Your task to perform on an android device: Empty the shopping cart on ebay. Image 0: 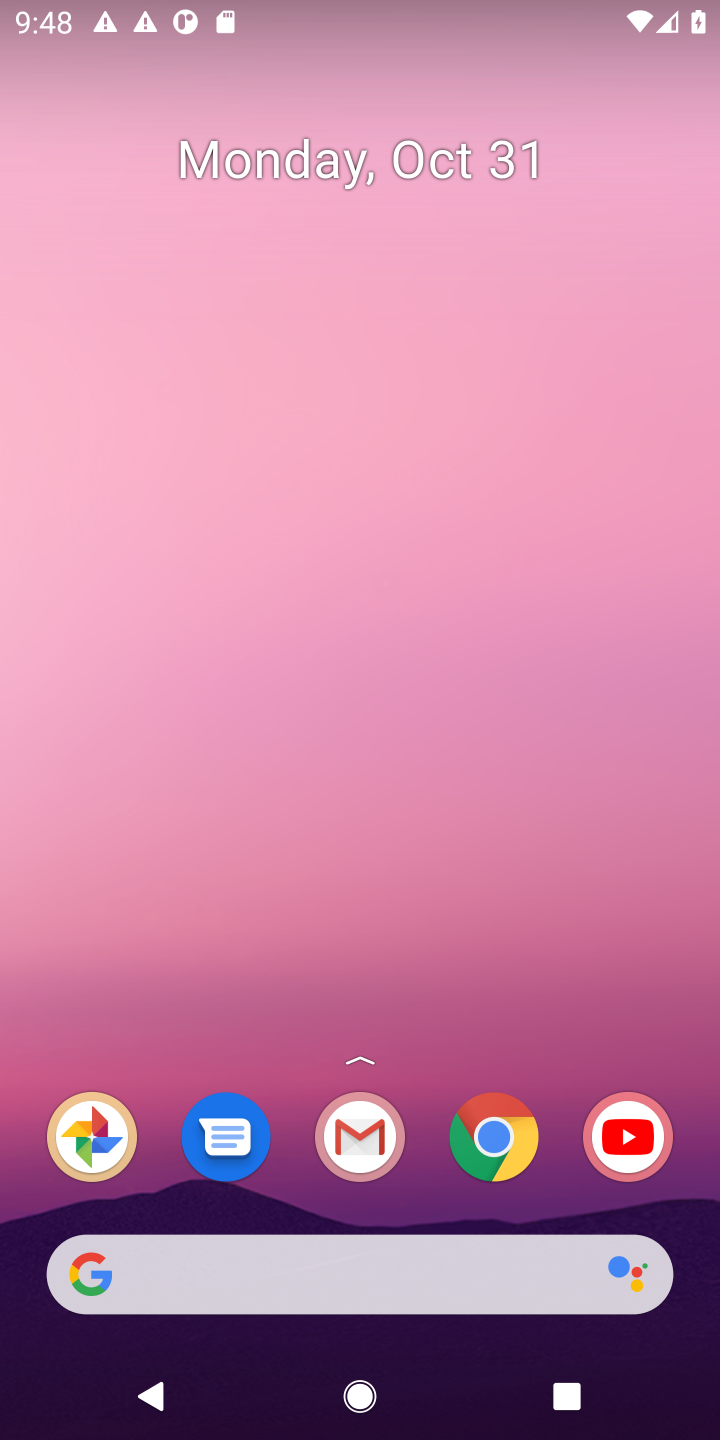
Step 0: press home button
Your task to perform on an android device: Empty the shopping cart on ebay. Image 1: 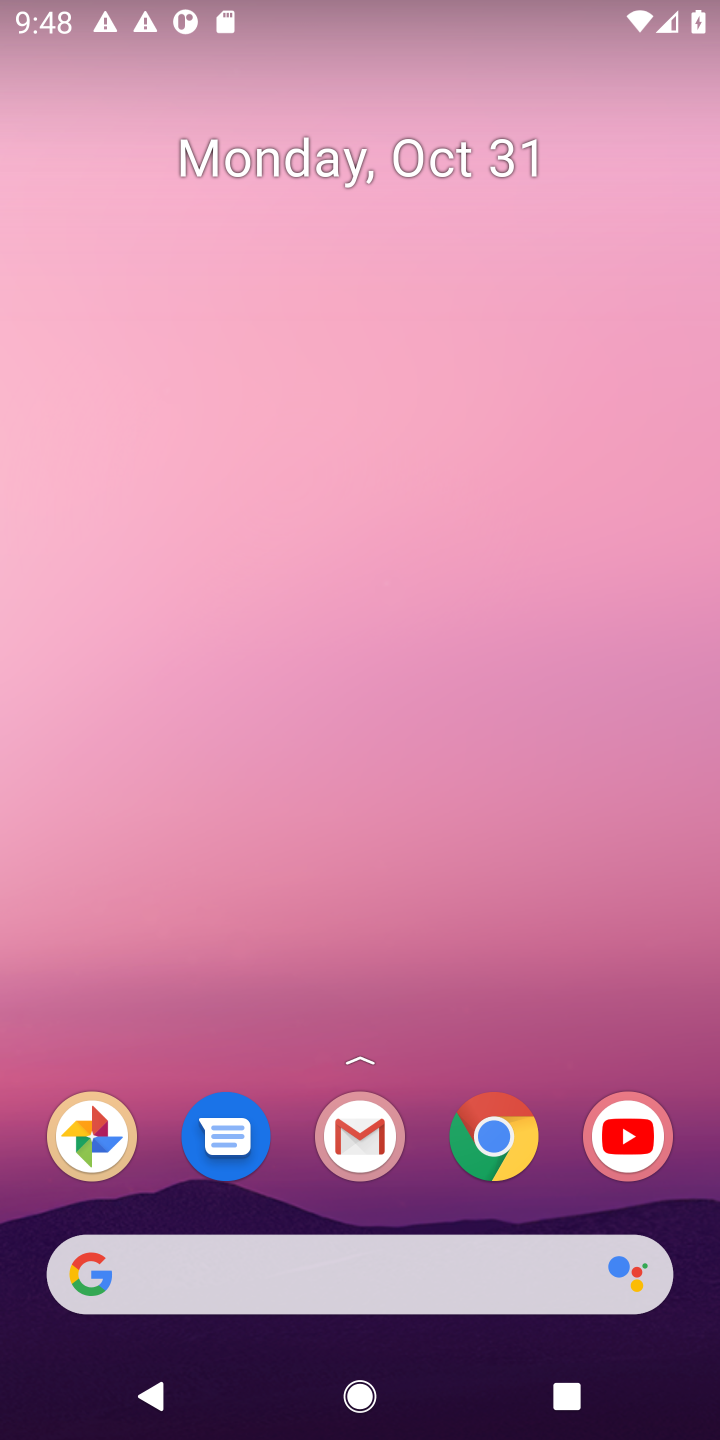
Step 1: click (136, 1273)
Your task to perform on an android device: Empty the shopping cart on ebay. Image 2: 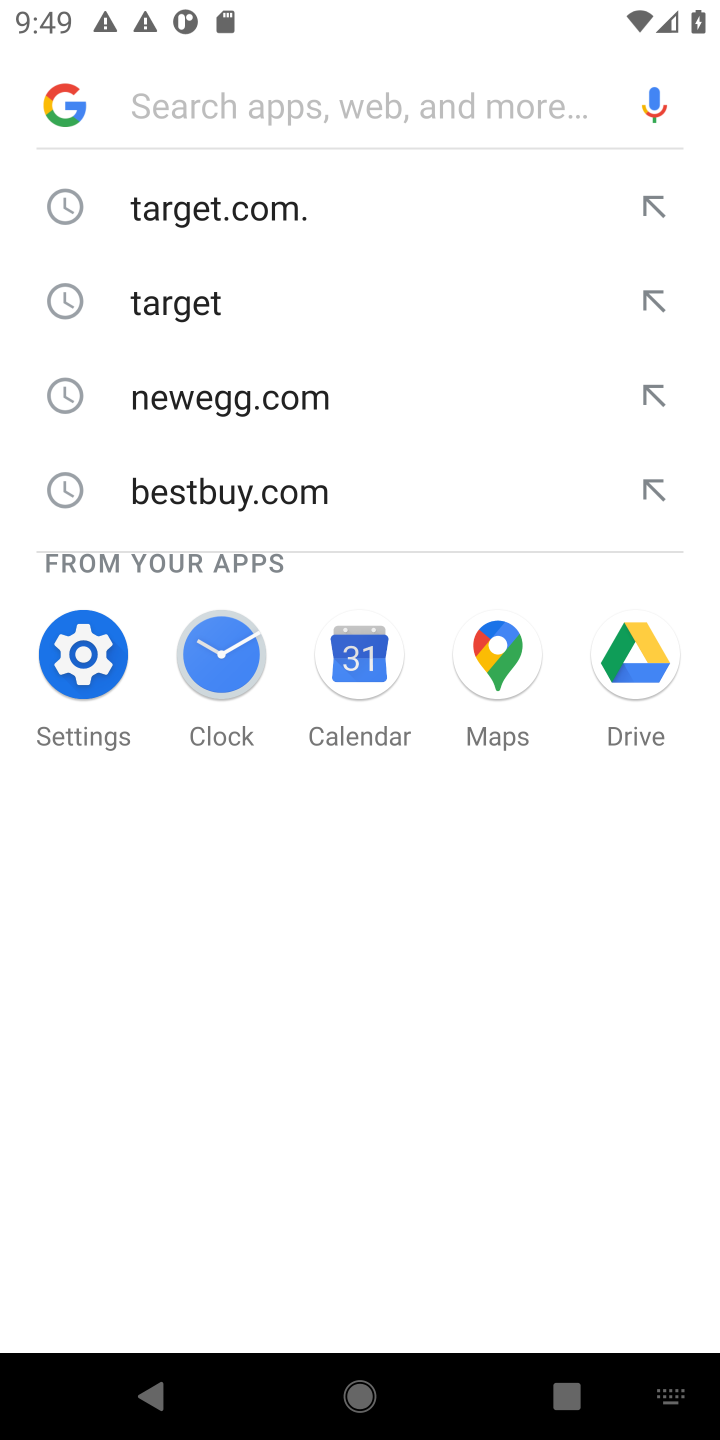
Step 2: type "ebay"
Your task to perform on an android device: Empty the shopping cart on ebay. Image 3: 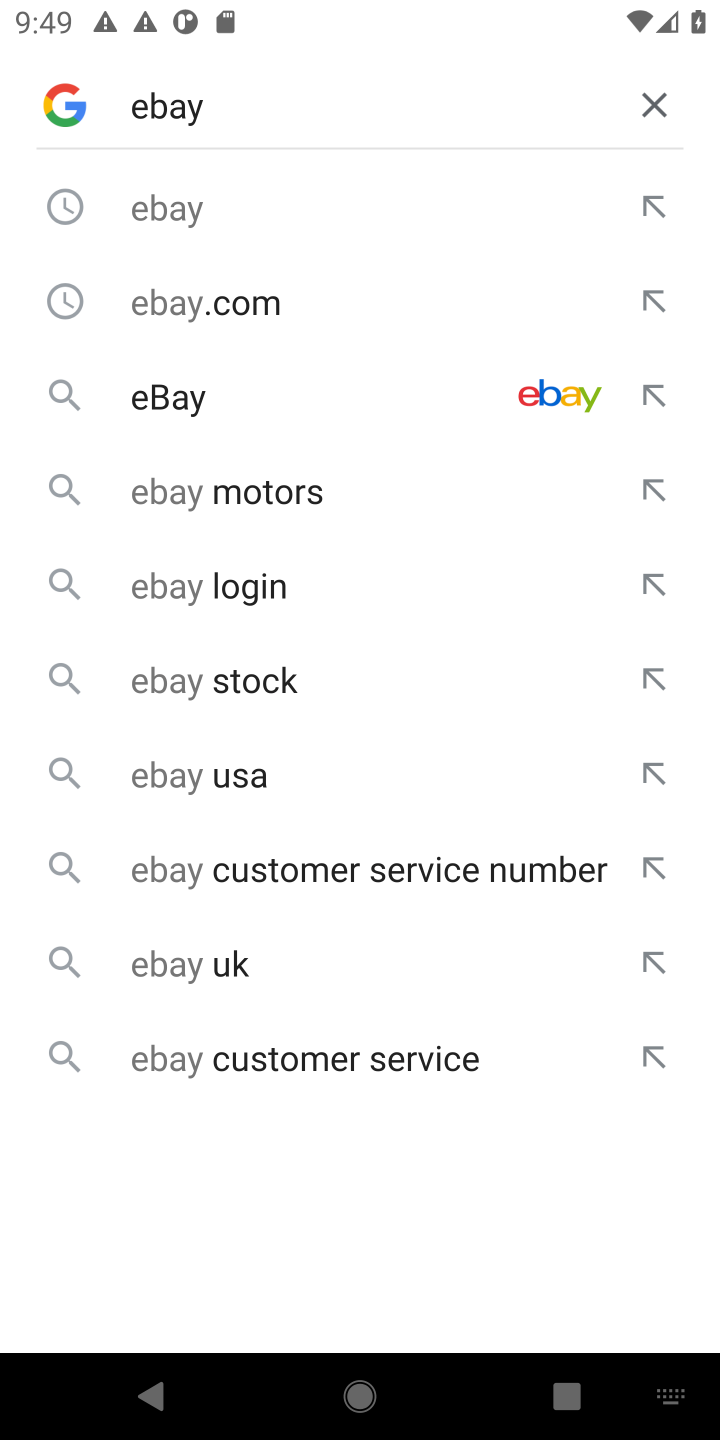
Step 3: press enter
Your task to perform on an android device: Empty the shopping cart on ebay. Image 4: 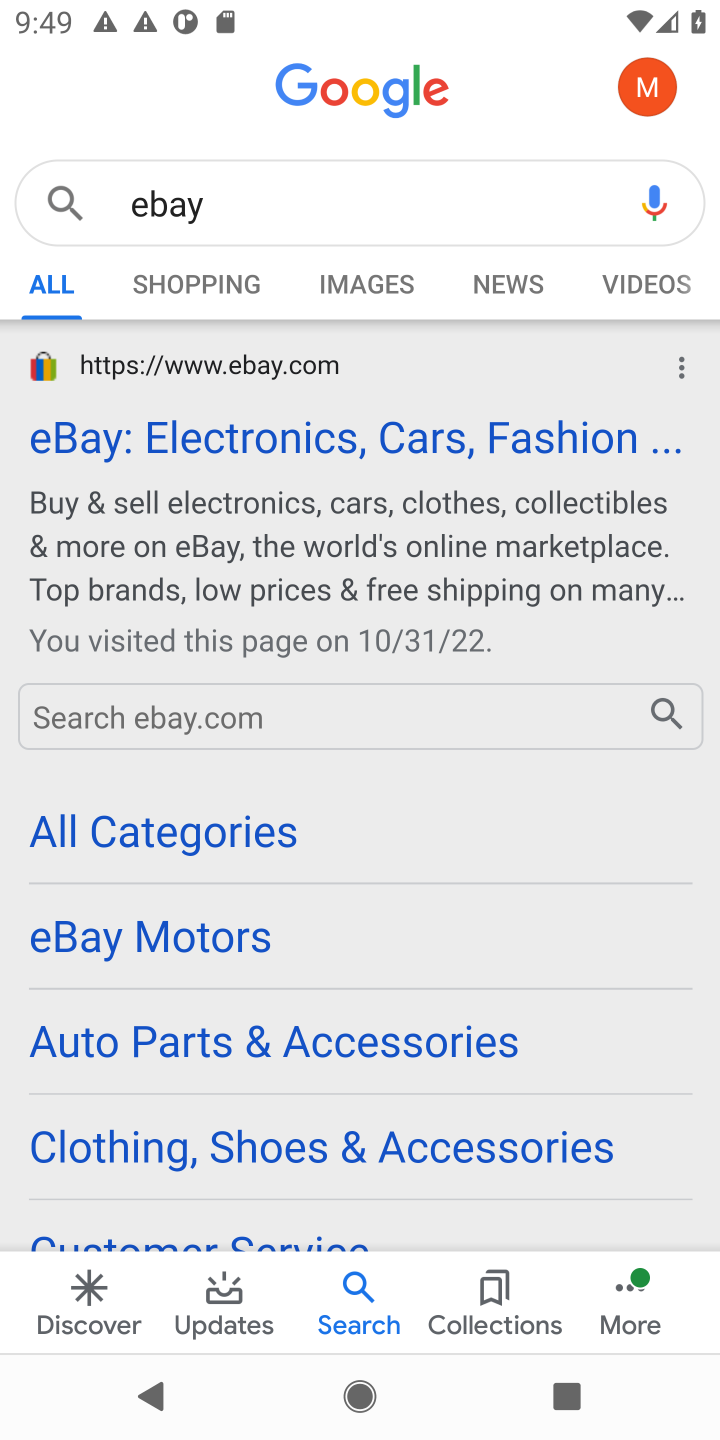
Step 4: click (306, 456)
Your task to perform on an android device: Empty the shopping cart on ebay. Image 5: 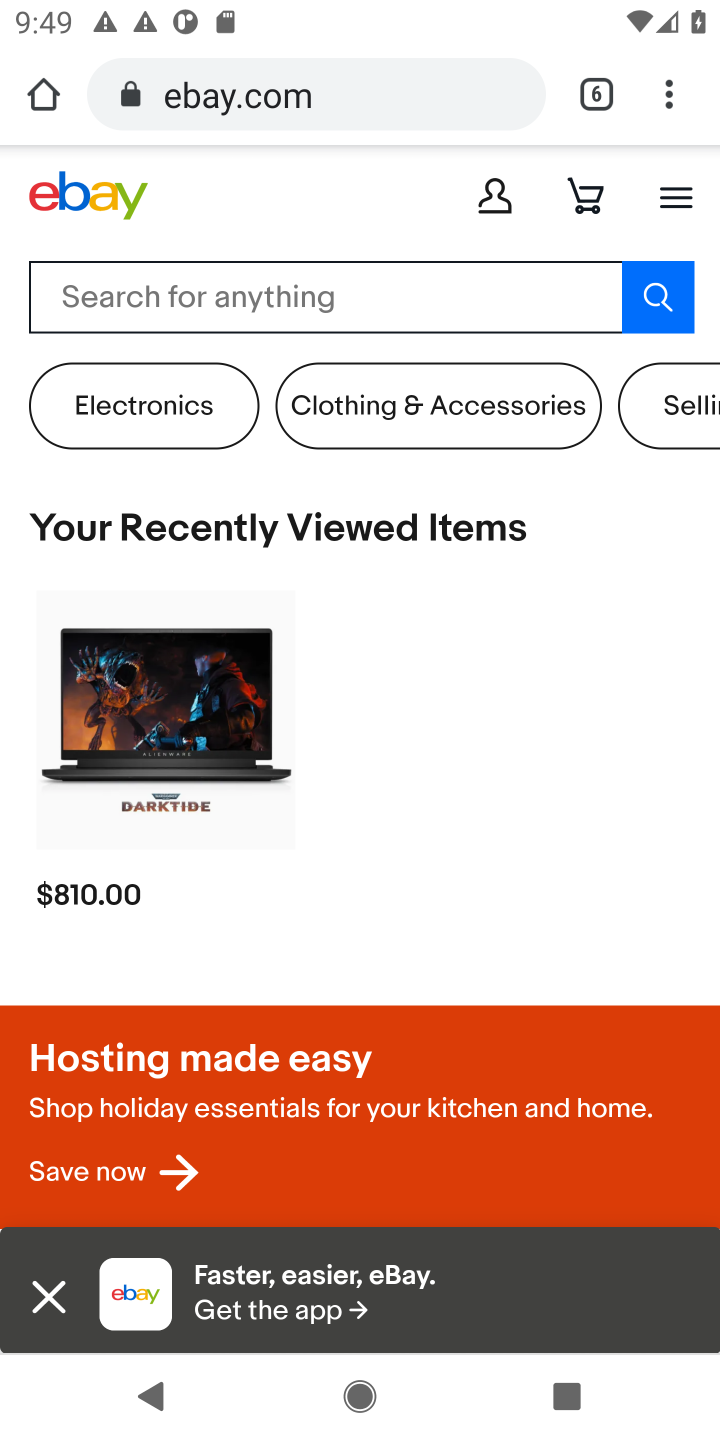
Step 5: click (585, 187)
Your task to perform on an android device: Empty the shopping cart on ebay. Image 6: 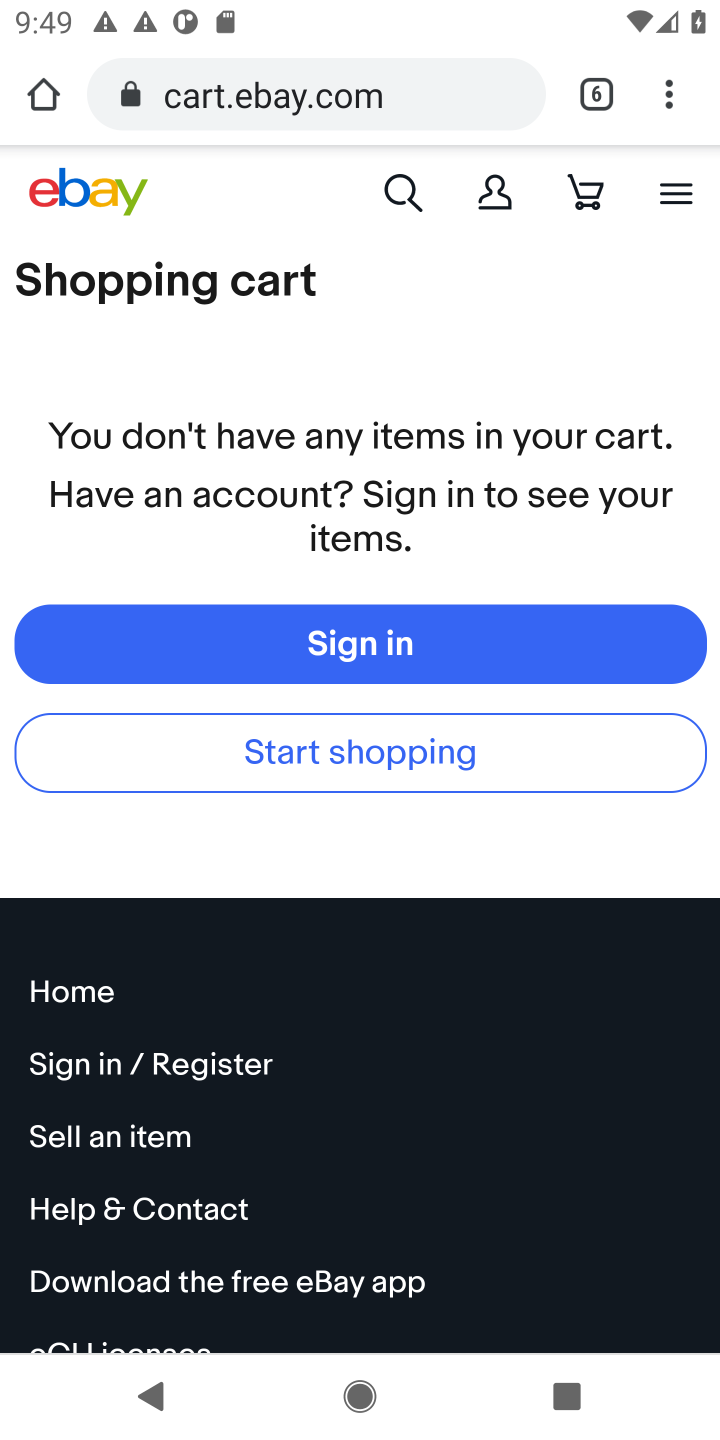
Step 6: task complete